Your task to perform on an android device: turn off location Image 0: 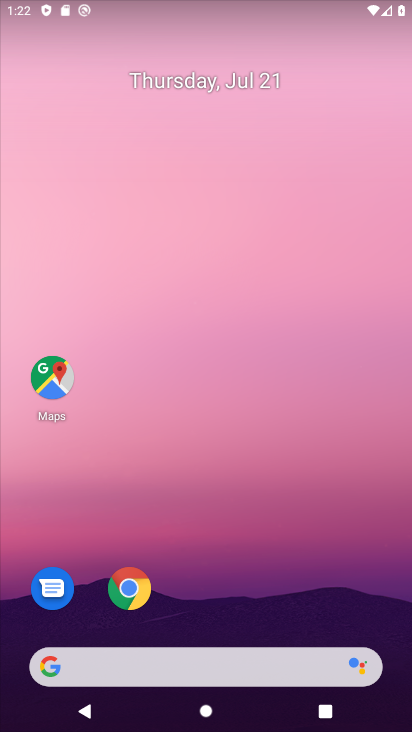
Step 0: drag from (197, 583) to (160, 108)
Your task to perform on an android device: turn off location Image 1: 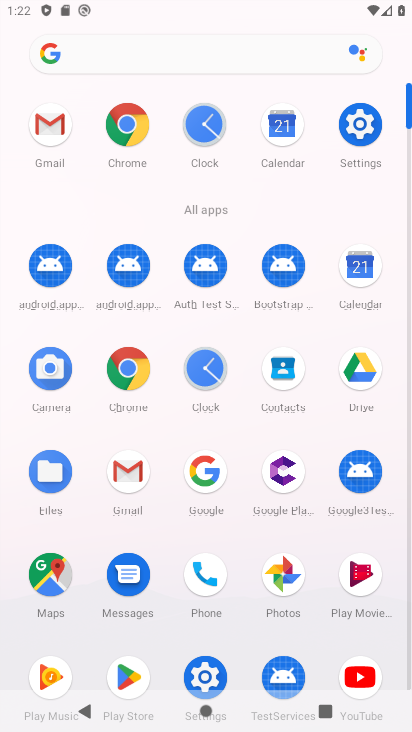
Step 1: click (362, 136)
Your task to perform on an android device: turn off location Image 2: 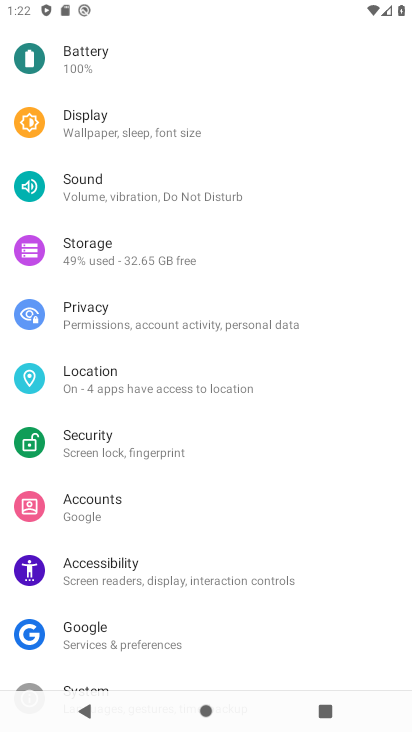
Step 2: click (113, 381)
Your task to perform on an android device: turn off location Image 3: 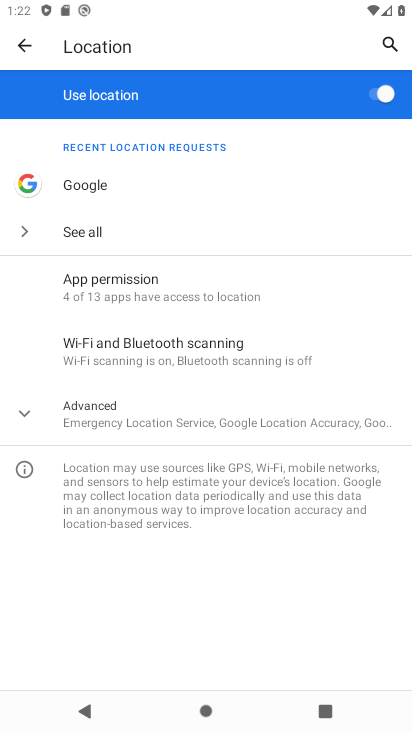
Step 3: click (363, 92)
Your task to perform on an android device: turn off location Image 4: 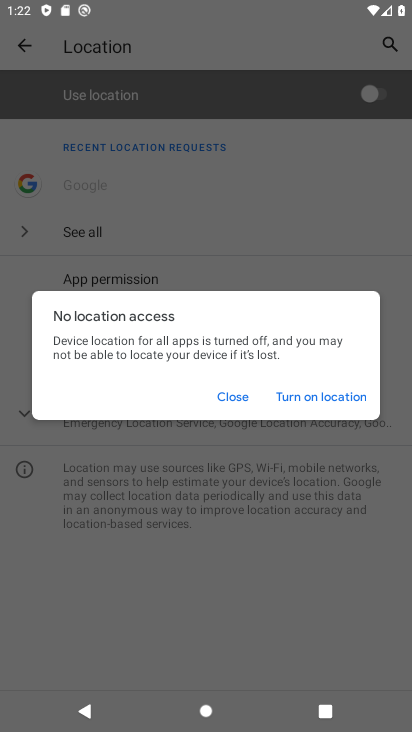
Step 4: click (239, 395)
Your task to perform on an android device: turn off location Image 5: 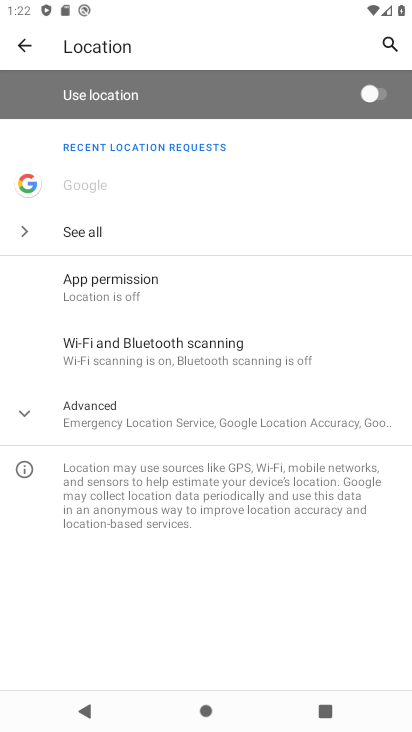
Step 5: task complete